Your task to perform on an android device: What's the weather? Image 0: 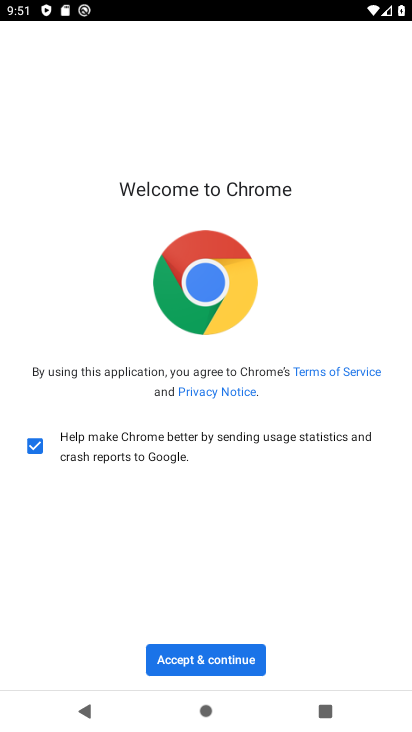
Step 0: press home button
Your task to perform on an android device: What's the weather? Image 1: 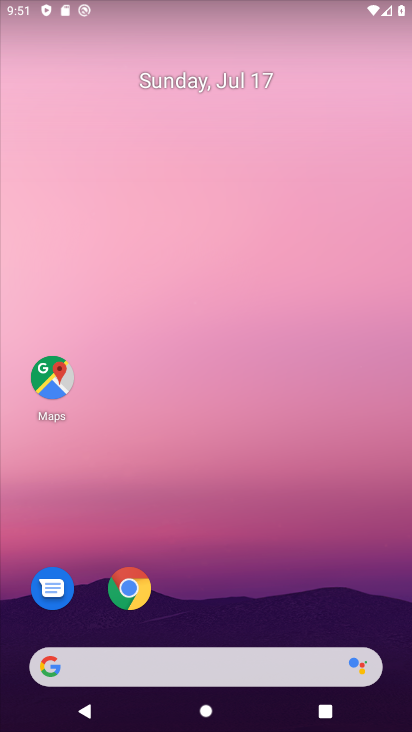
Step 1: click (221, 658)
Your task to perform on an android device: What's the weather? Image 2: 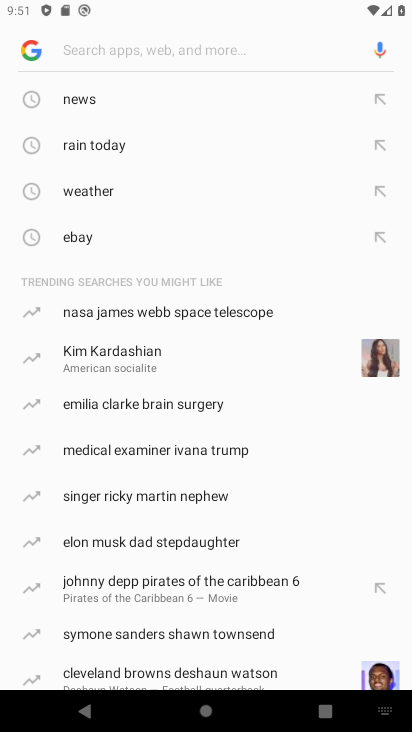
Step 2: click (82, 190)
Your task to perform on an android device: What's the weather? Image 3: 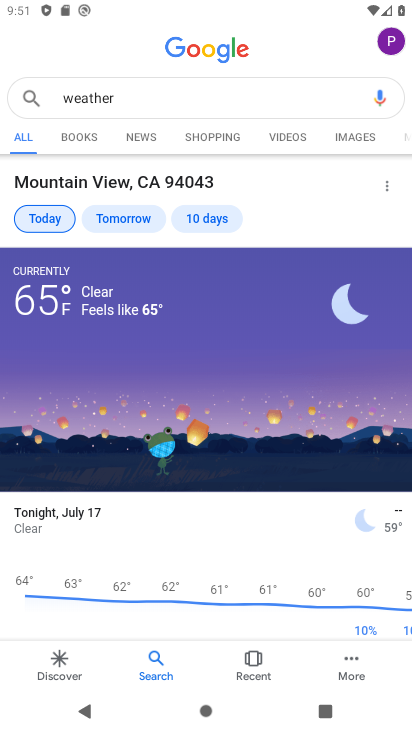
Step 3: task complete